Your task to perform on an android device: open app "Etsy: Buy & Sell Unique Items" (install if not already installed), go to login, and select forgot password Image 0: 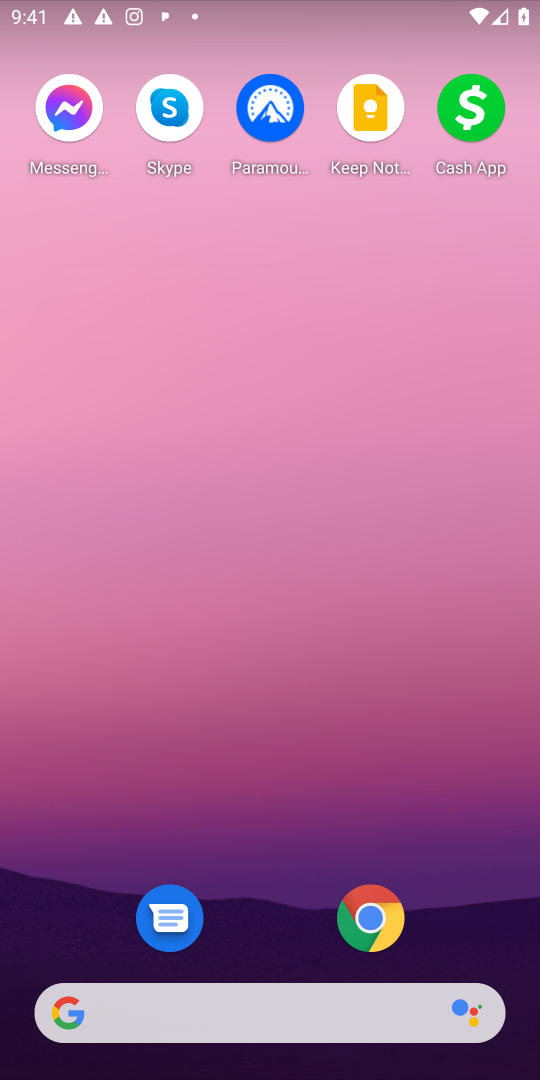
Step 0: press home button
Your task to perform on an android device: open app "Etsy: Buy & Sell Unique Items" (install if not already installed), go to login, and select forgot password Image 1: 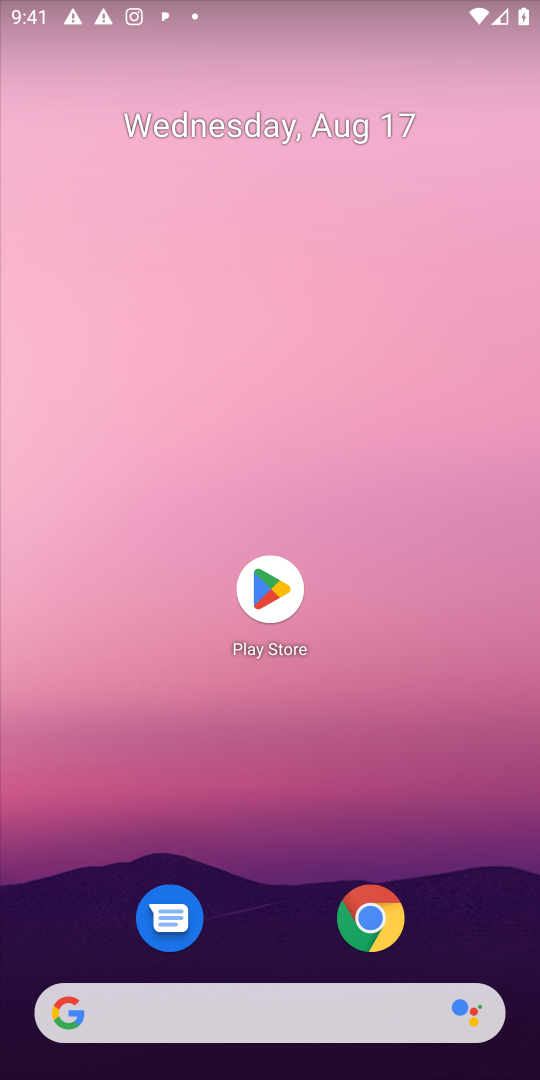
Step 1: click (273, 597)
Your task to perform on an android device: open app "Etsy: Buy & Sell Unique Items" (install if not already installed), go to login, and select forgot password Image 2: 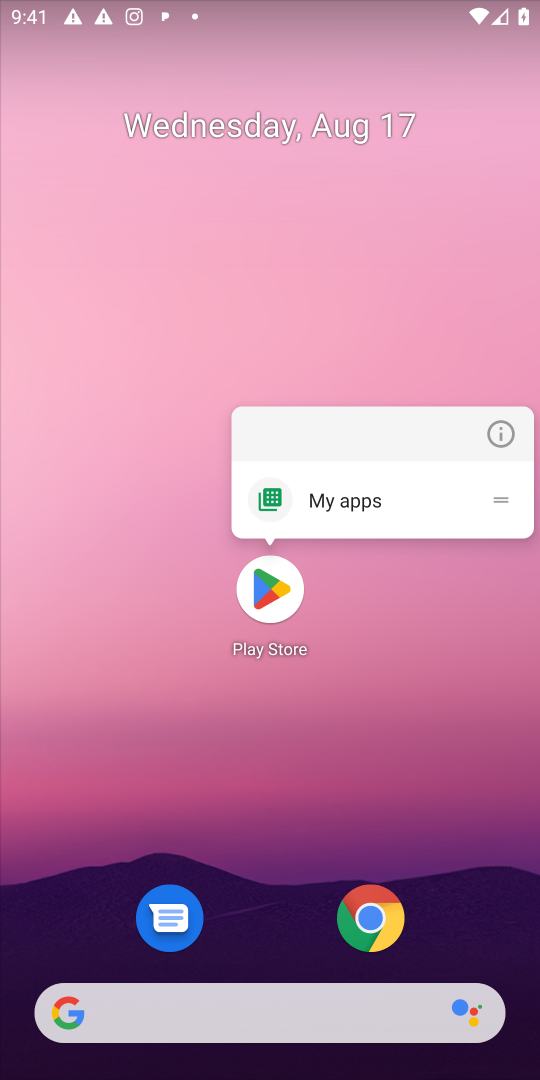
Step 2: click (273, 601)
Your task to perform on an android device: open app "Etsy: Buy & Sell Unique Items" (install if not already installed), go to login, and select forgot password Image 3: 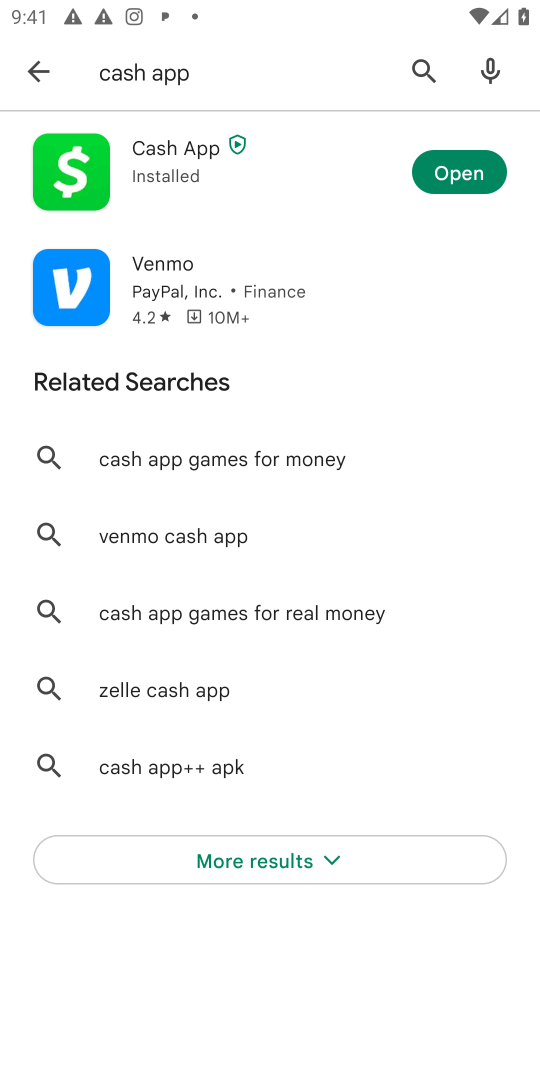
Step 3: click (424, 73)
Your task to perform on an android device: open app "Etsy: Buy & Sell Unique Items" (install if not already installed), go to login, and select forgot password Image 4: 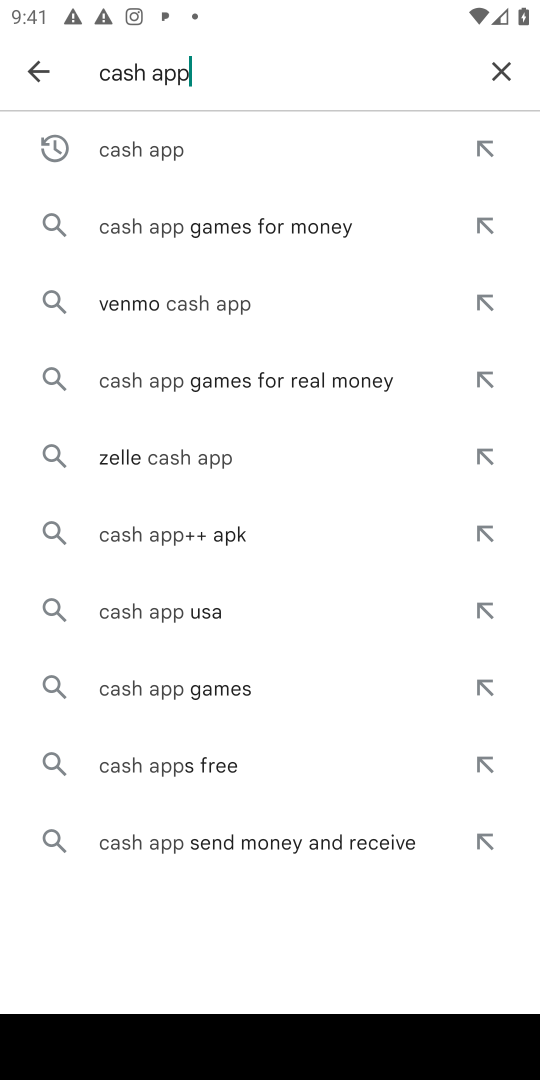
Step 4: click (501, 72)
Your task to perform on an android device: open app "Etsy: Buy & Sell Unique Items" (install if not already installed), go to login, and select forgot password Image 5: 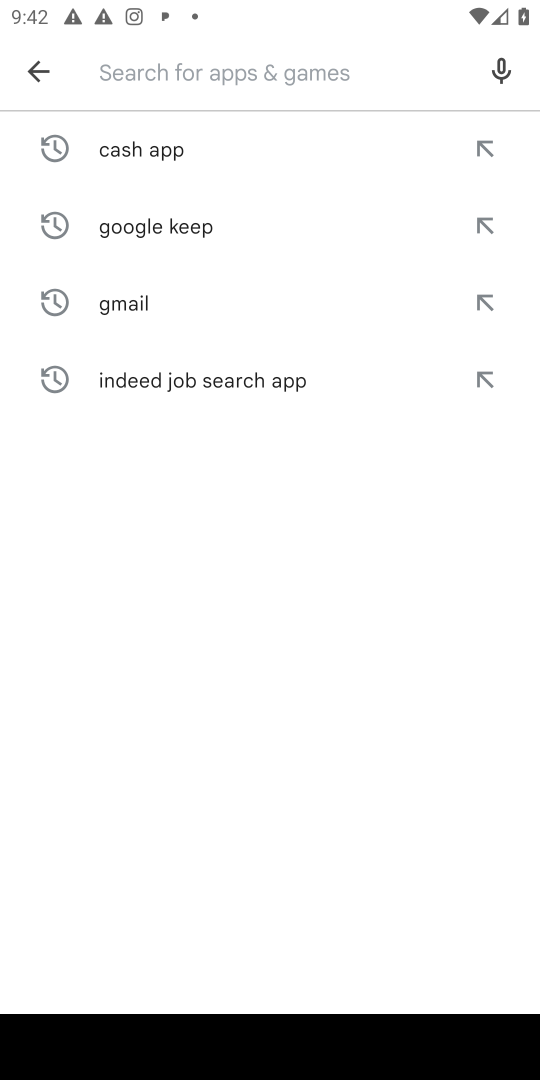
Step 5: type "Etsy: Buy & Sell Unique Items"
Your task to perform on an android device: open app "Etsy: Buy & Sell Unique Items" (install if not already installed), go to login, and select forgot password Image 6: 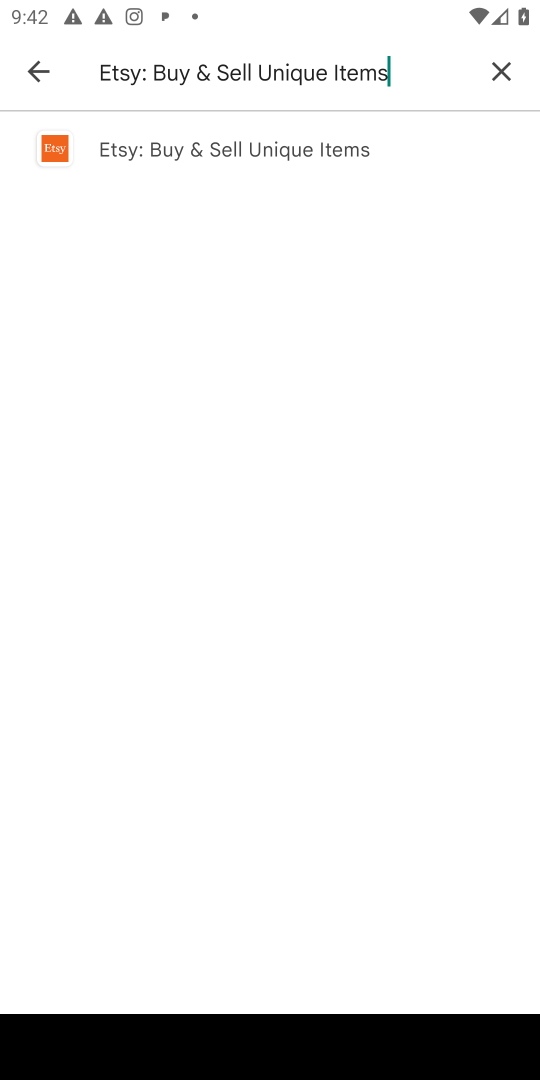
Step 6: click (169, 151)
Your task to perform on an android device: open app "Etsy: Buy & Sell Unique Items" (install if not already installed), go to login, and select forgot password Image 7: 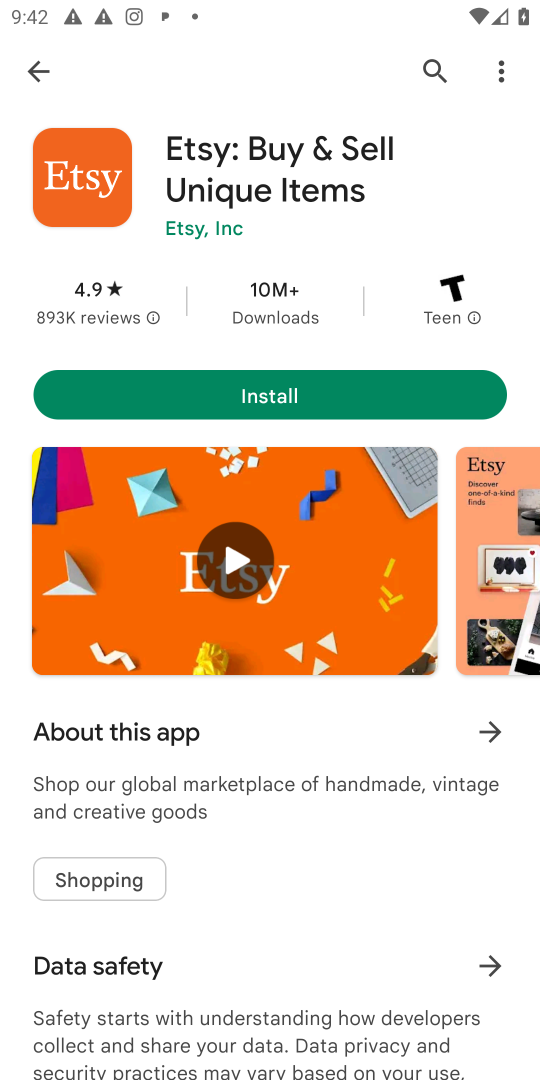
Step 7: click (300, 403)
Your task to perform on an android device: open app "Etsy: Buy & Sell Unique Items" (install if not already installed), go to login, and select forgot password Image 8: 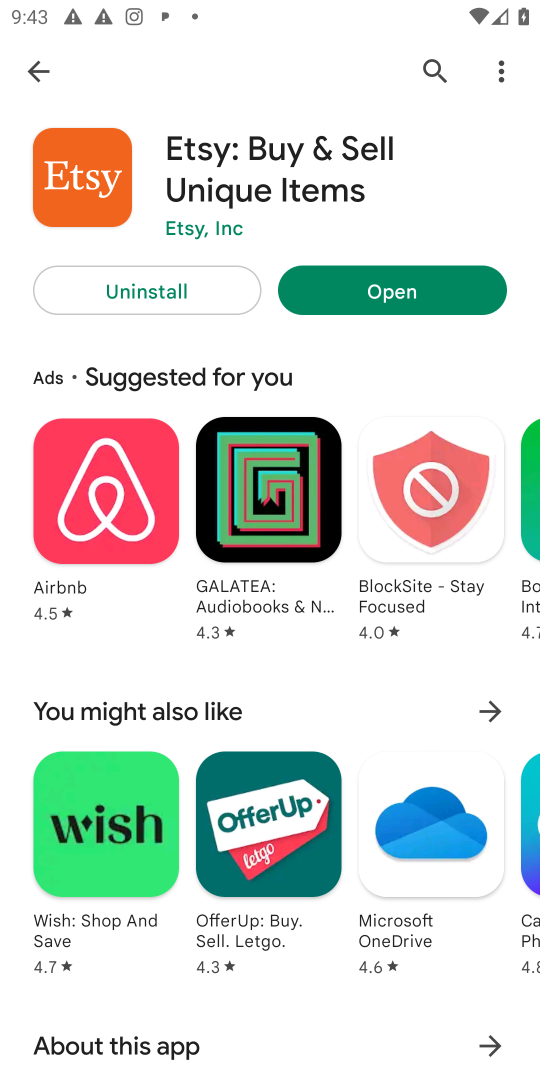
Step 8: click (396, 287)
Your task to perform on an android device: open app "Etsy: Buy & Sell Unique Items" (install if not already installed), go to login, and select forgot password Image 9: 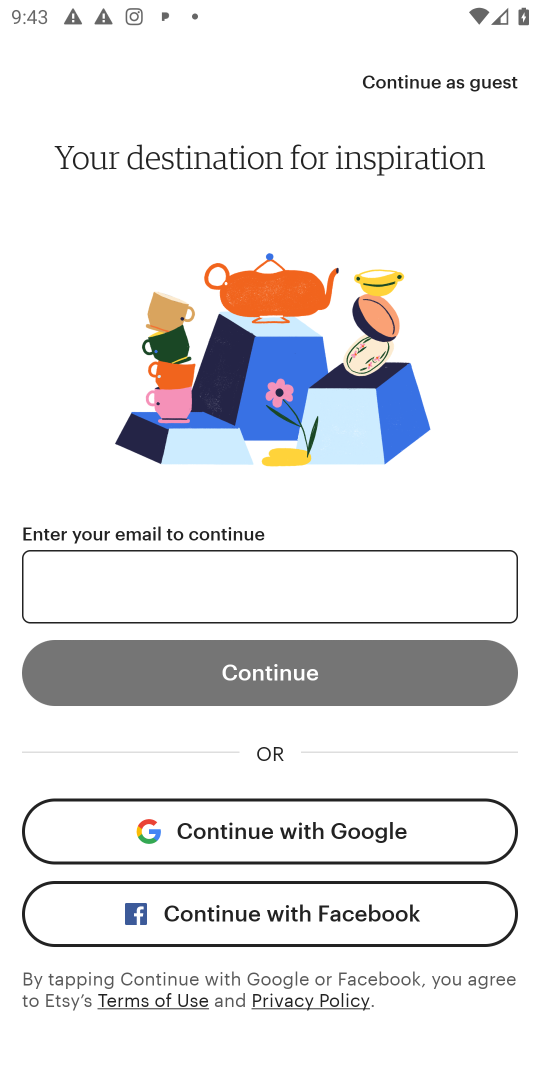
Step 9: task complete